Your task to perform on an android device: Open ESPN.com Image 0: 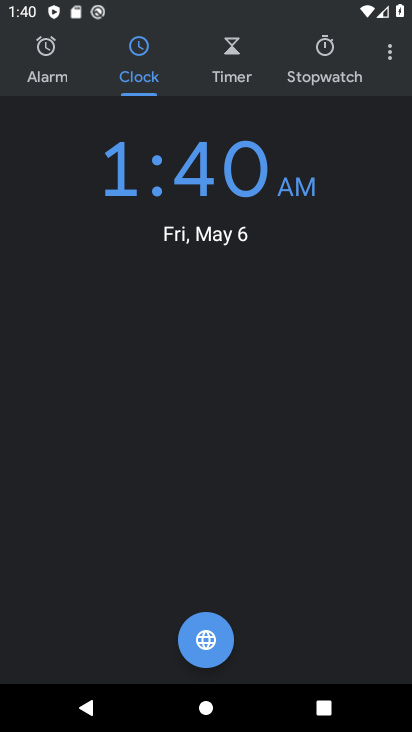
Step 0: press home button
Your task to perform on an android device: Open ESPN.com Image 1: 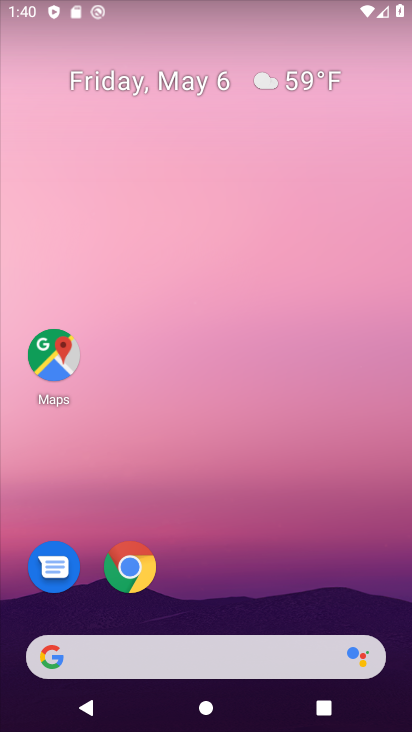
Step 1: click (129, 570)
Your task to perform on an android device: Open ESPN.com Image 2: 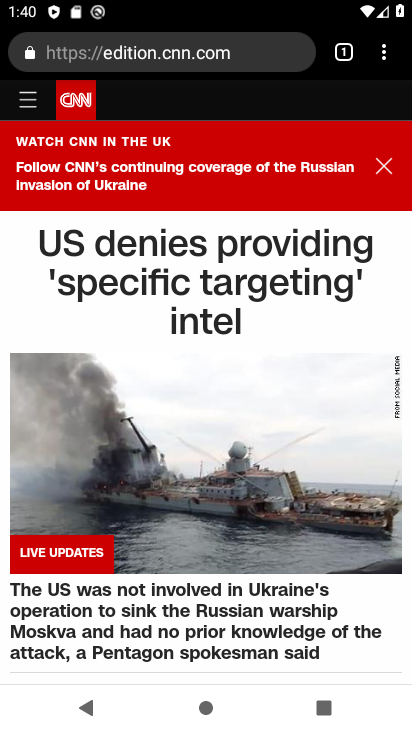
Step 2: click (275, 55)
Your task to perform on an android device: Open ESPN.com Image 3: 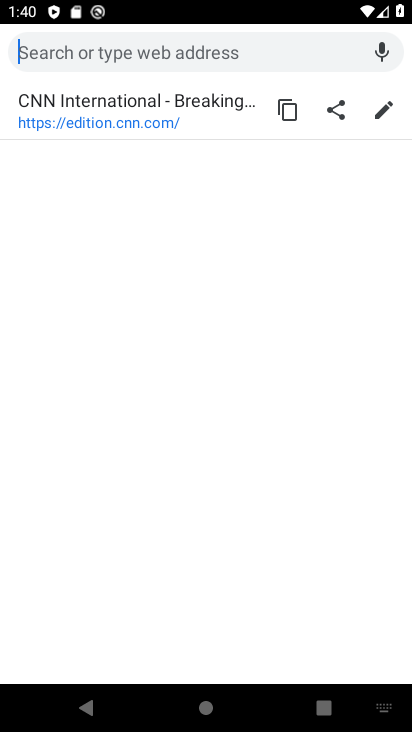
Step 3: type "ESPN.com"
Your task to perform on an android device: Open ESPN.com Image 4: 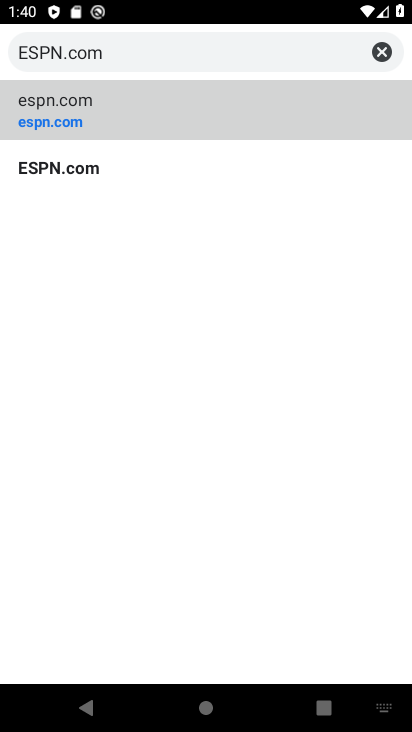
Step 4: click (80, 172)
Your task to perform on an android device: Open ESPN.com Image 5: 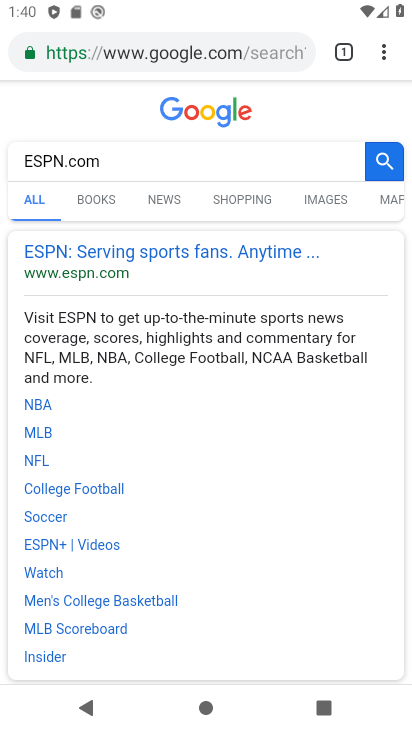
Step 5: click (195, 253)
Your task to perform on an android device: Open ESPN.com Image 6: 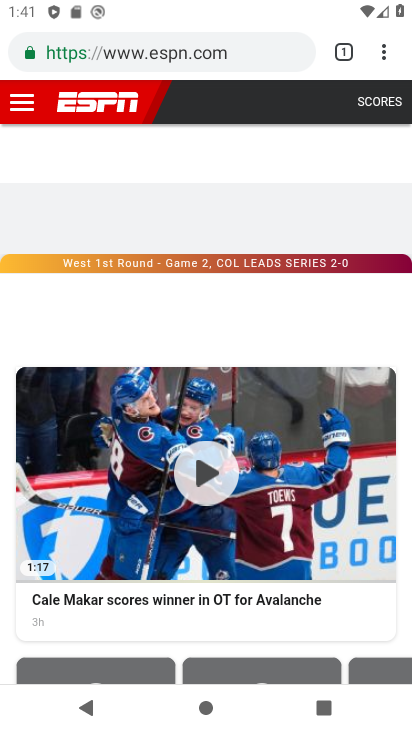
Step 6: task complete